Your task to perform on an android device: toggle wifi Image 0: 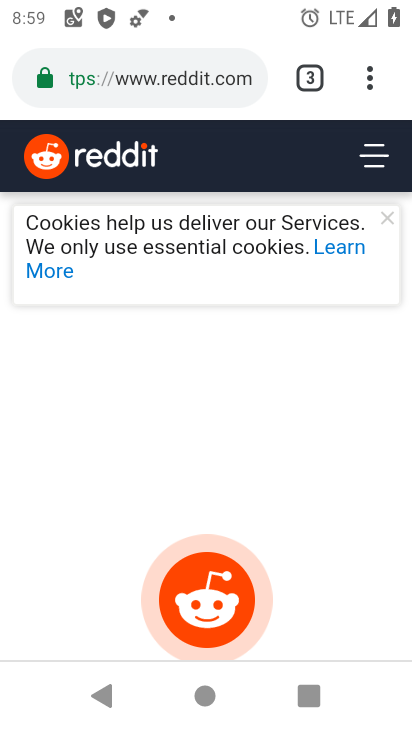
Step 0: press home button
Your task to perform on an android device: toggle wifi Image 1: 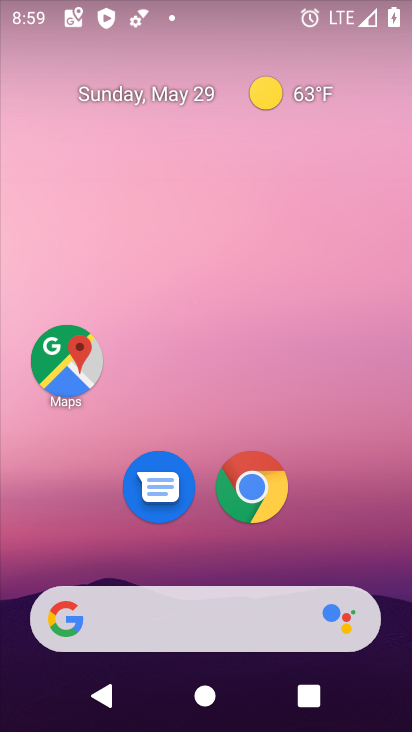
Step 1: drag from (246, 584) to (283, 229)
Your task to perform on an android device: toggle wifi Image 2: 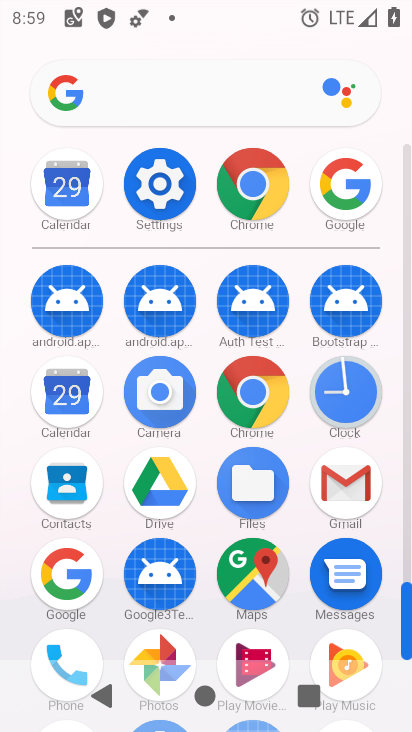
Step 2: click (163, 204)
Your task to perform on an android device: toggle wifi Image 3: 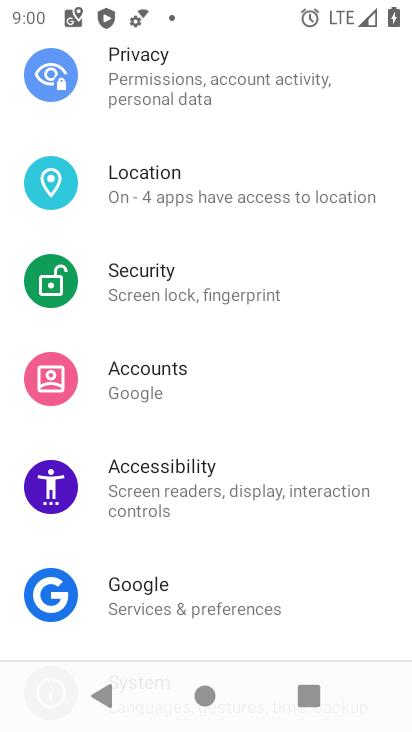
Step 3: drag from (178, 223) to (136, 542)
Your task to perform on an android device: toggle wifi Image 4: 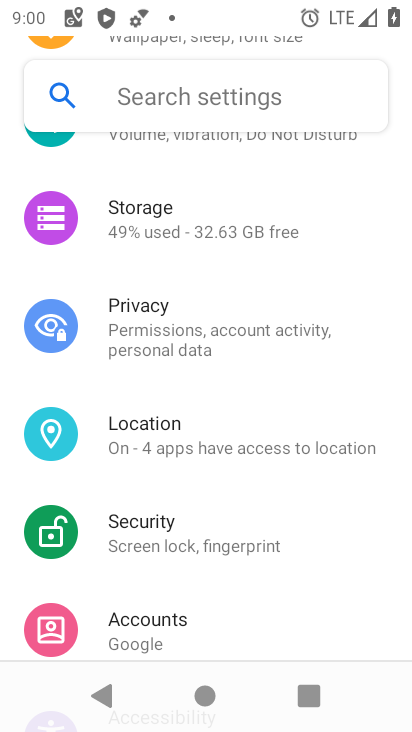
Step 4: drag from (154, 338) to (116, 609)
Your task to perform on an android device: toggle wifi Image 5: 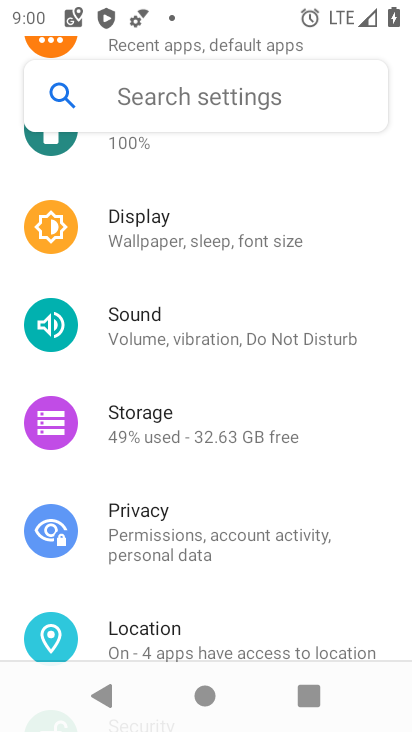
Step 5: drag from (181, 350) to (125, 672)
Your task to perform on an android device: toggle wifi Image 6: 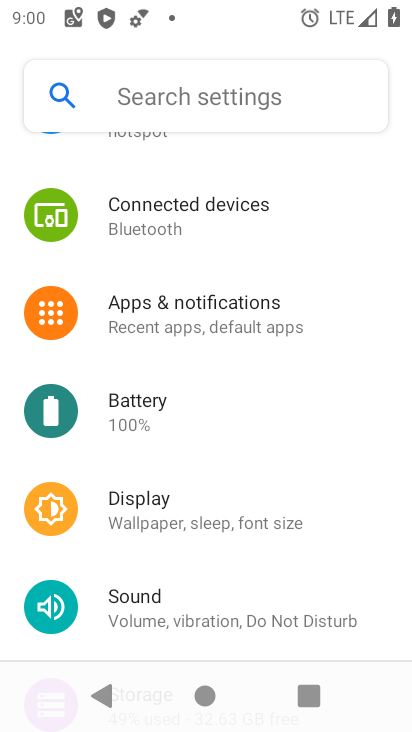
Step 6: drag from (198, 314) to (149, 649)
Your task to perform on an android device: toggle wifi Image 7: 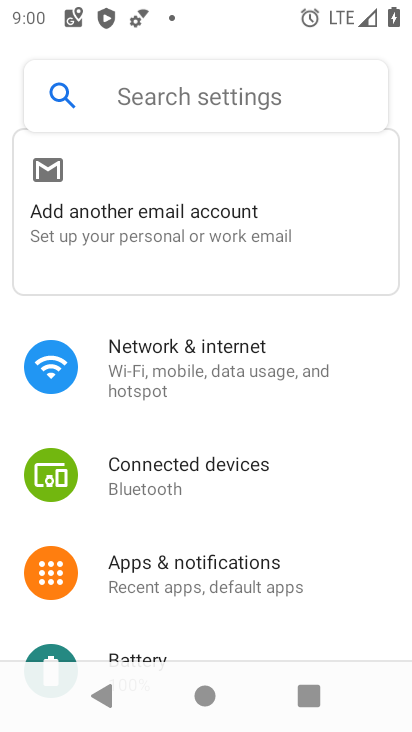
Step 7: drag from (186, 411) to (151, 682)
Your task to perform on an android device: toggle wifi Image 8: 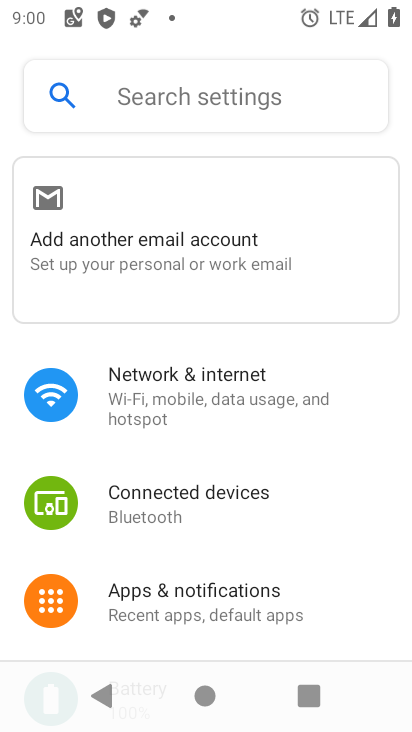
Step 8: drag from (188, 435) to (151, 700)
Your task to perform on an android device: toggle wifi Image 9: 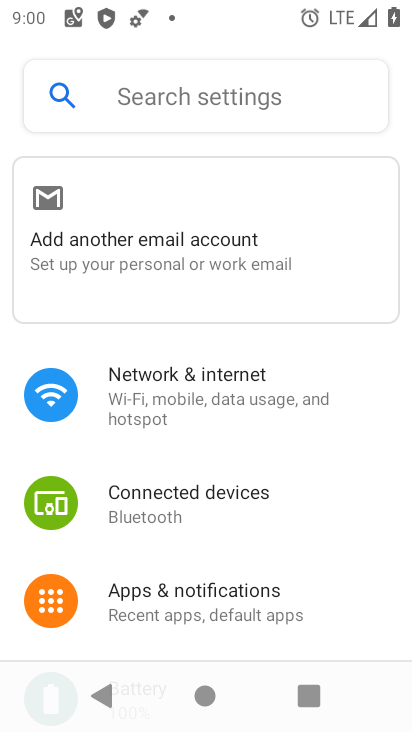
Step 9: click (203, 407)
Your task to perform on an android device: toggle wifi Image 10: 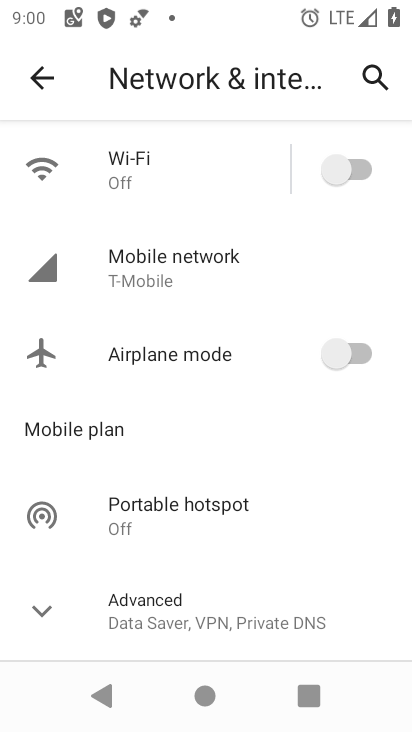
Step 10: click (357, 163)
Your task to perform on an android device: toggle wifi Image 11: 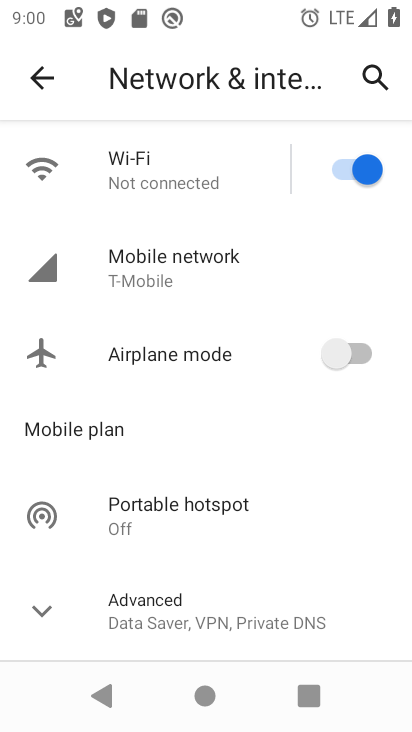
Step 11: task complete